Your task to perform on an android device: Show me popular games on the Play Store Image 0: 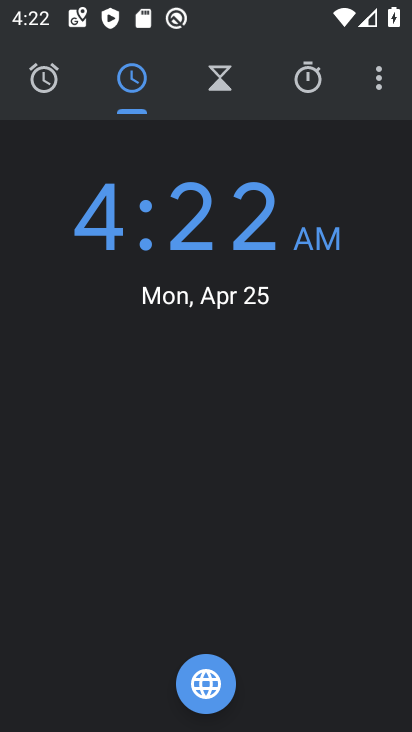
Step 0: press home button
Your task to perform on an android device: Show me popular games on the Play Store Image 1: 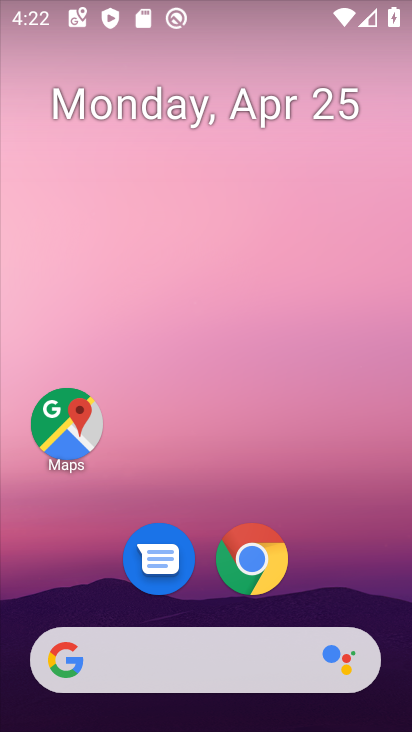
Step 1: drag from (209, 466) to (276, 34)
Your task to perform on an android device: Show me popular games on the Play Store Image 2: 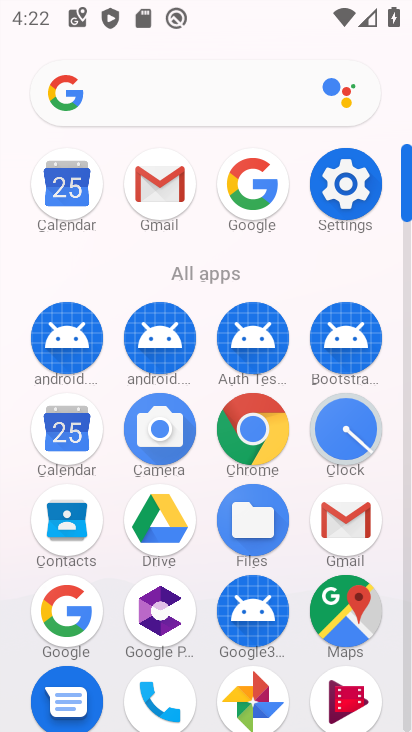
Step 2: drag from (206, 472) to (210, 250)
Your task to perform on an android device: Show me popular games on the Play Store Image 3: 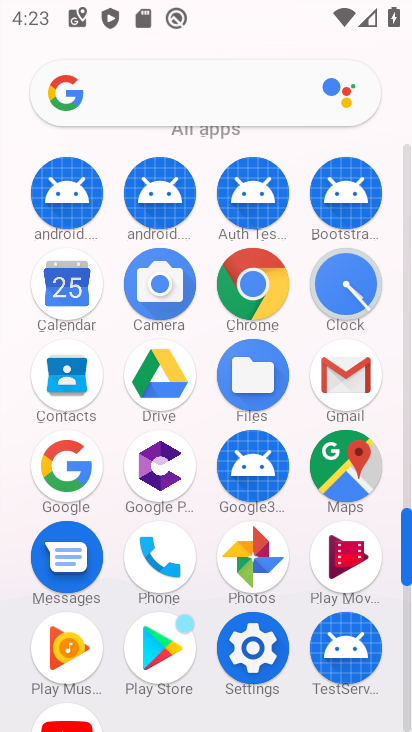
Step 3: click (169, 646)
Your task to perform on an android device: Show me popular games on the Play Store Image 4: 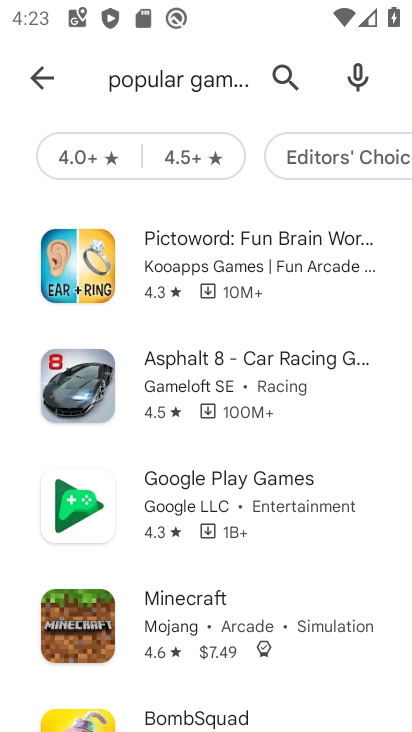
Step 4: task complete